Your task to perform on an android device: Go to sound settings Image 0: 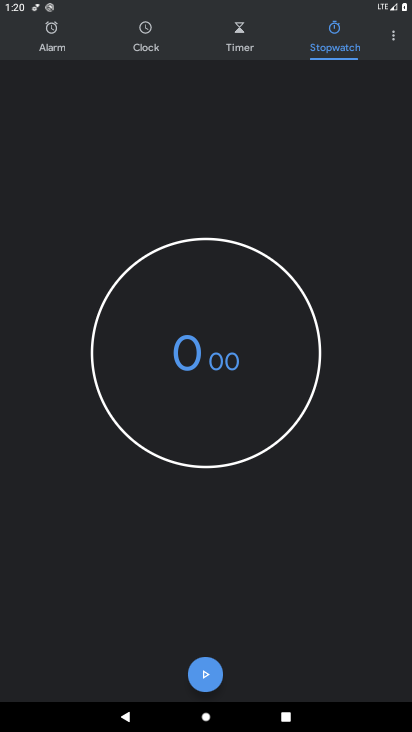
Step 0: press home button
Your task to perform on an android device: Go to sound settings Image 1: 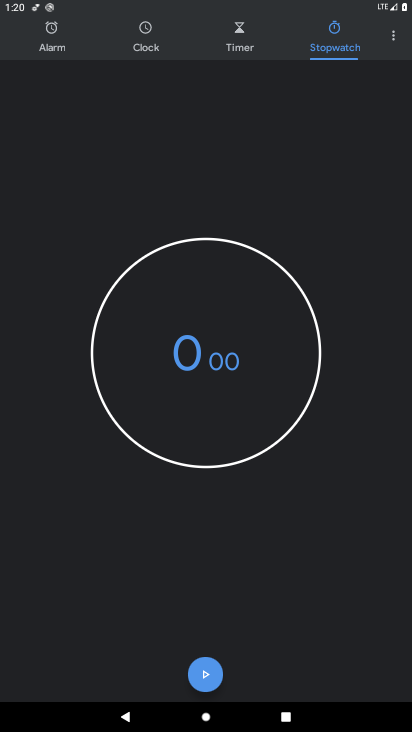
Step 1: press home button
Your task to perform on an android device: Go to sound settings Image 2: 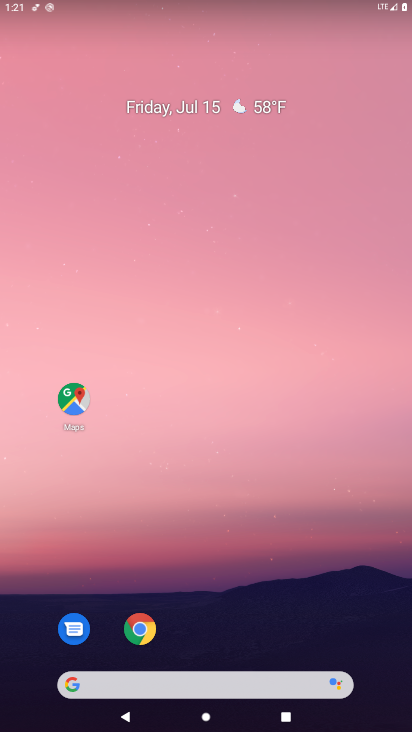
Step 2: drag from (210, 585) to (281, 54)
Your task to perform on an android device: Go to sound settings Image 3: 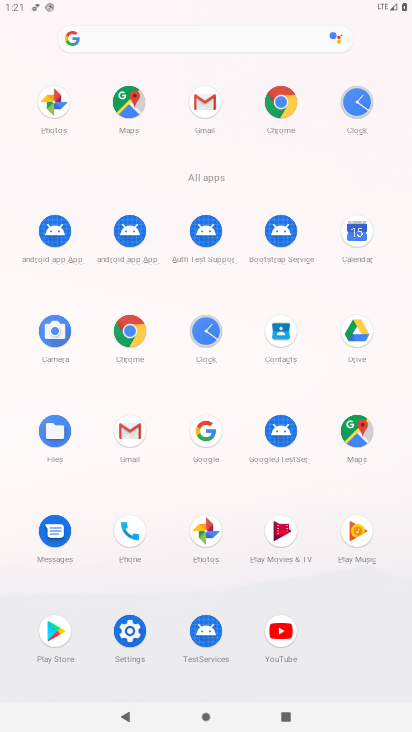
Step 3: click (122, 648)
Your task to perform on an android device: Go to sound settings Image 4: 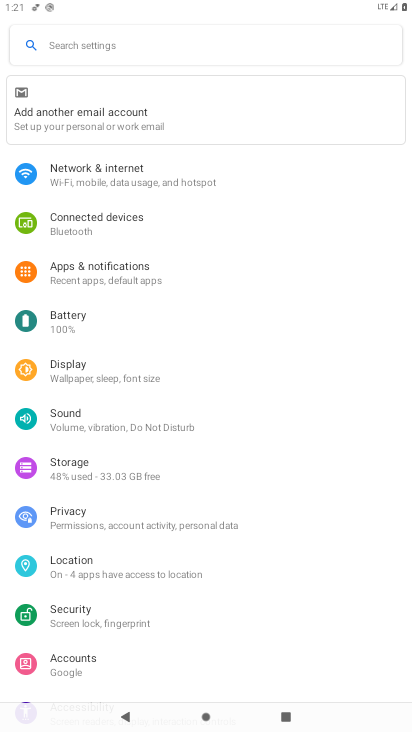
Step 4: click (121, 417)
Your task to perform on an android device: Go to sound settings Image 5: 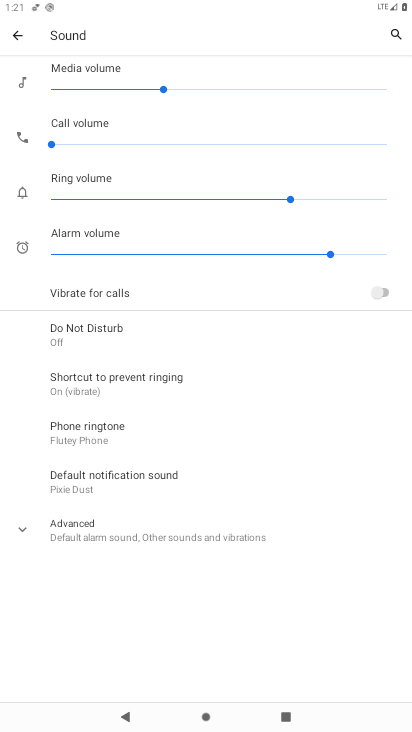
Step 5: task complete